Your task to perform on an android device: Go to CNN.com Image 0: 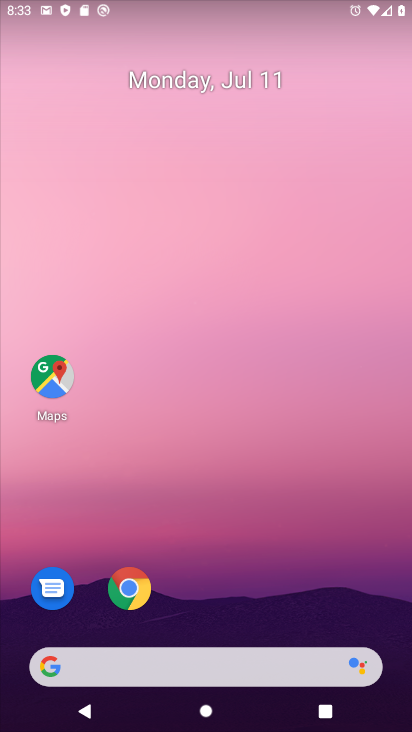
Step 0: click (135, 596)
Your task to perform on an android device: Go to CNN.com Image 1: 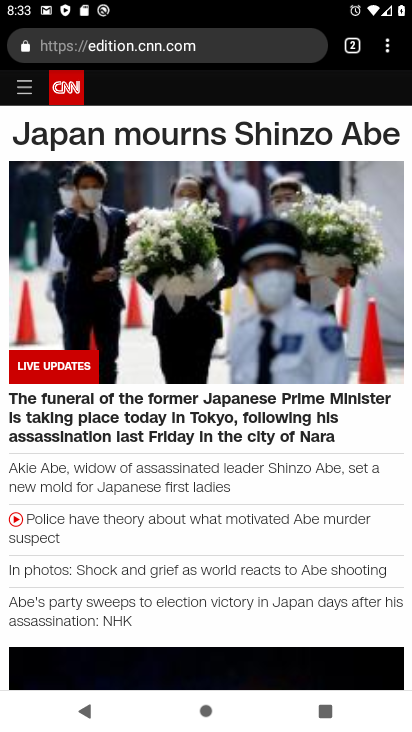
Step 1: task complete